Your task to perform on an android device: set the timer Image 0: 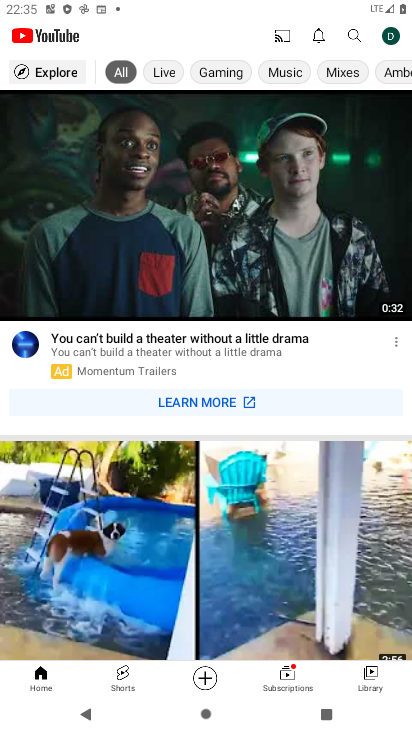
Step 0: press home button
Your task to perform on an android device: set the timer Image 1: 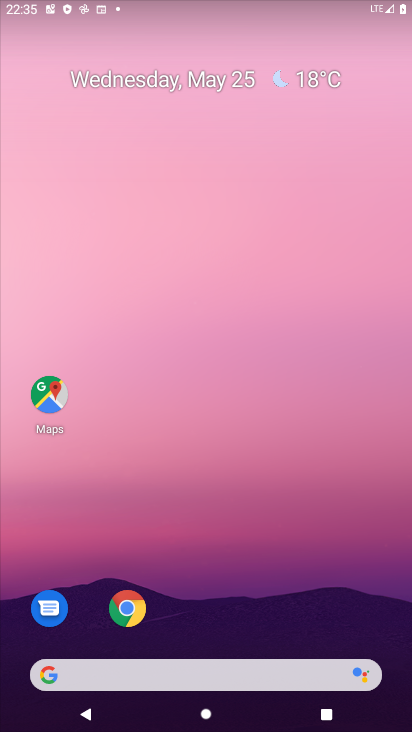
Step 1: drag from (277, 579) to (107, 7)
Your task to perform on an android device: set the timer Image 2: 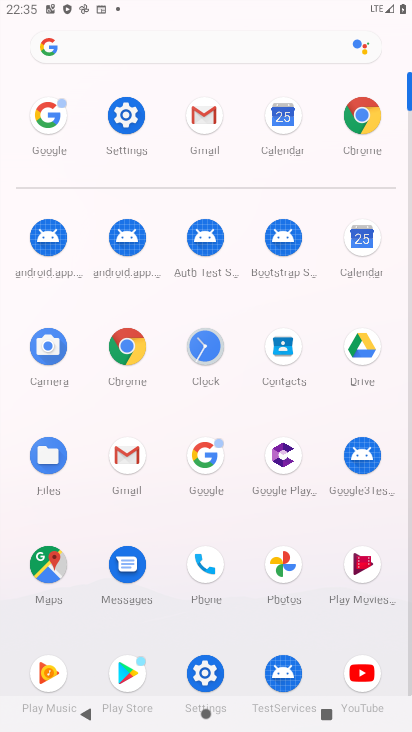
Step 2: click (204, 353)
Your task to perform on an android device: set the timer Image 3: 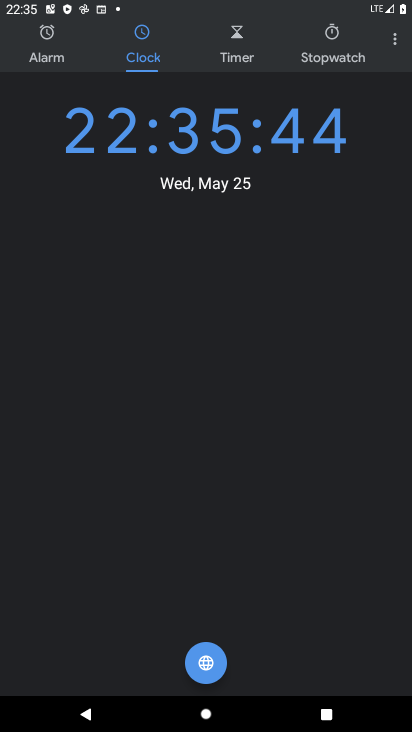
Step 3: click (233, 57)
Your task to perform on an android device: set the timer Image 4: 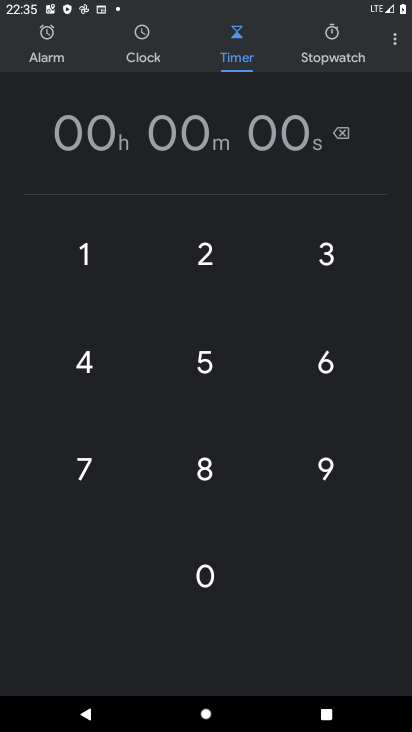
Step 4: click (88, 268)
Your task to perform on an android device: set the timer Image 5: 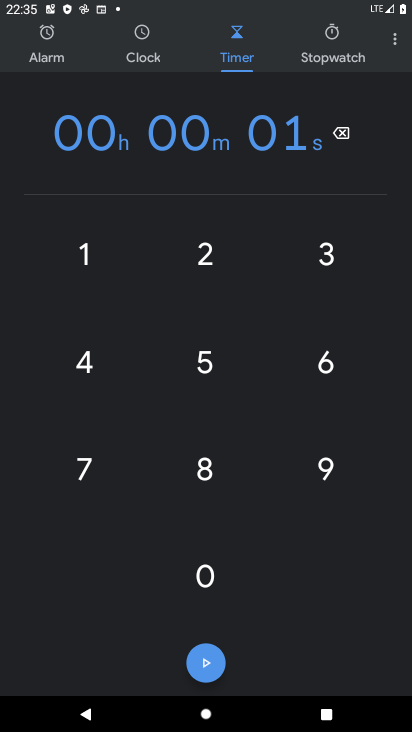
Step 5: click (92, 258)
Your task to perform on an android device: set the timer Image 6: 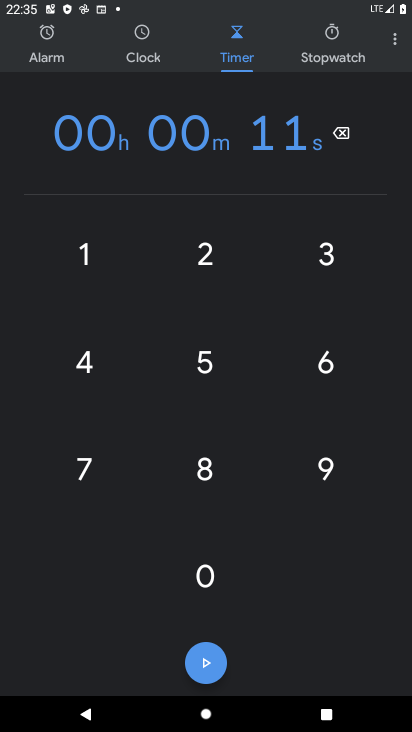
Step 6: click (91, 256)
Your task to perform on an android device: set the timer Image 7: 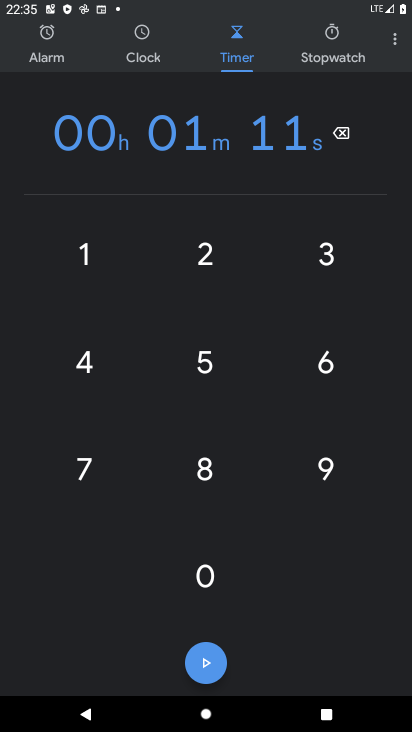
Step 7: click (91, 256)
Your task to perform on an android device: set the timer Image 8: 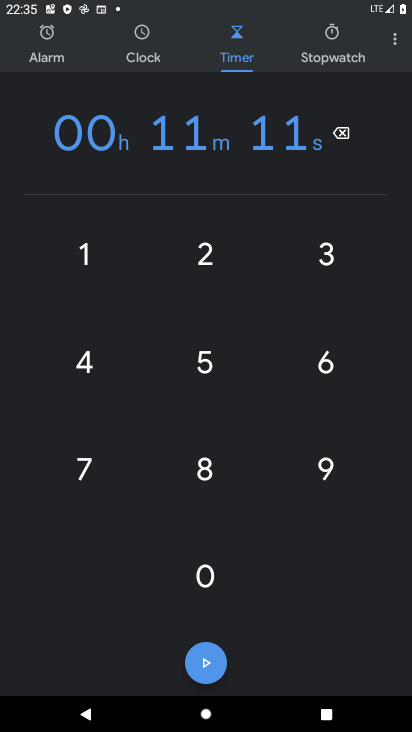
Step 8: click (91, 256)
Your task to perform on an android device: set the timer Image 9: 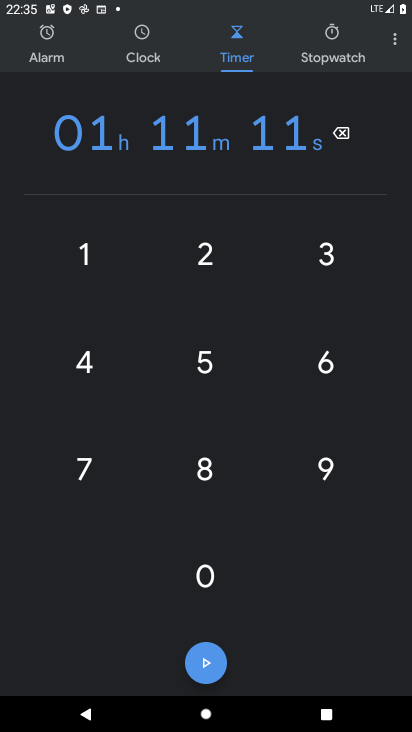
Step 9: click (91, 256)
Your task to perform on an android device: set the timer Image 10: 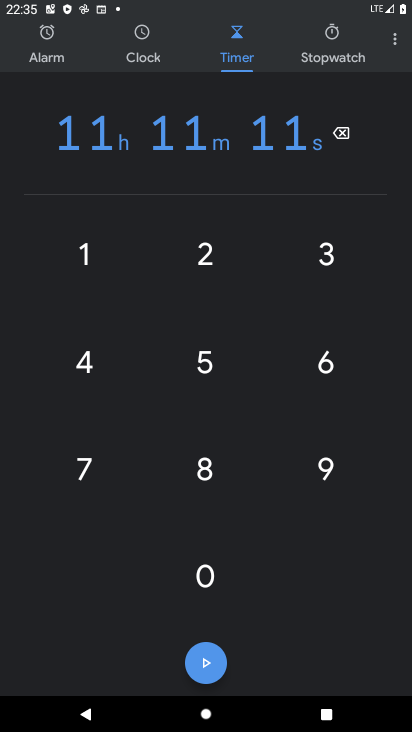
Step 10: click (208, 667)
Your task to perform on an android device: set the timer Image 11: 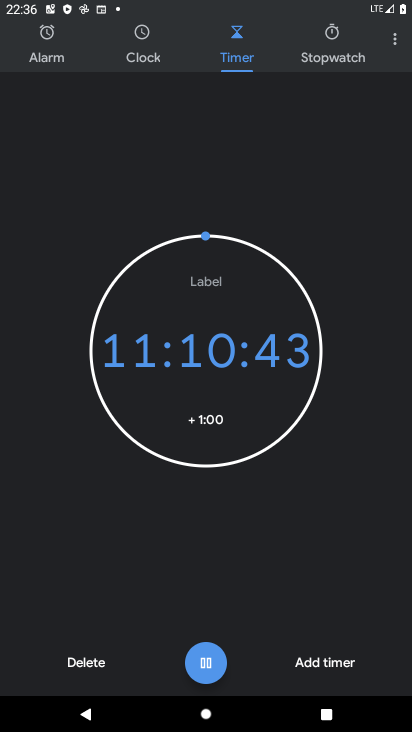
Step 11: task complete